Your task to perform on an android device: Search for "logitech g910" on walmart.com, select the first entry, add it to the cart, then select checkout. Image 0: 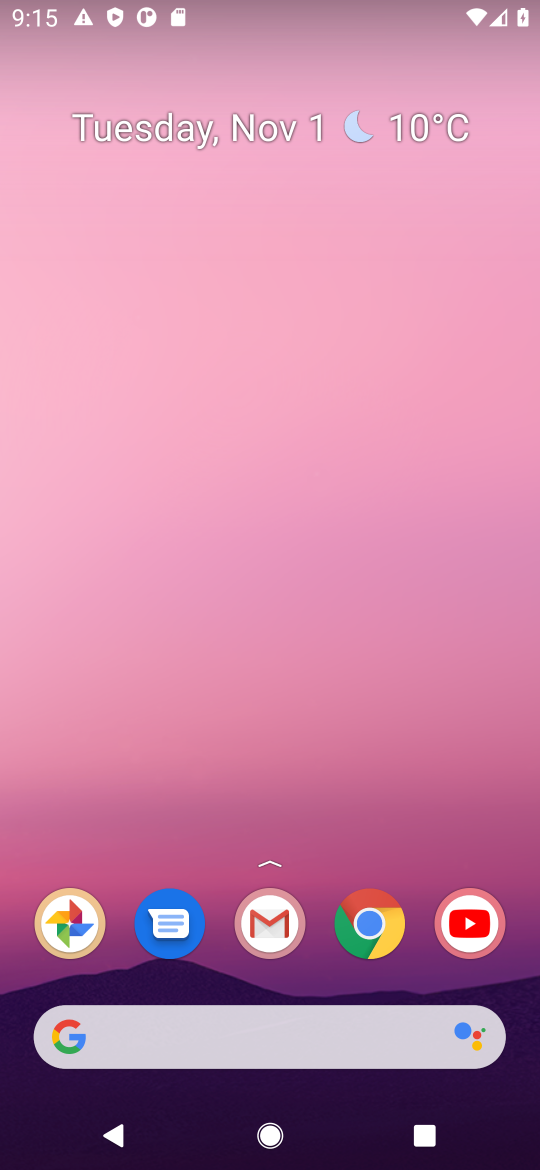
Step 0: drag from (326, 991) to (173, 11)
Your task to perform on an android device: Search for "logitech g910" on walmart.com, select the first entry, add it to the cart, then select checkout. Image 1: 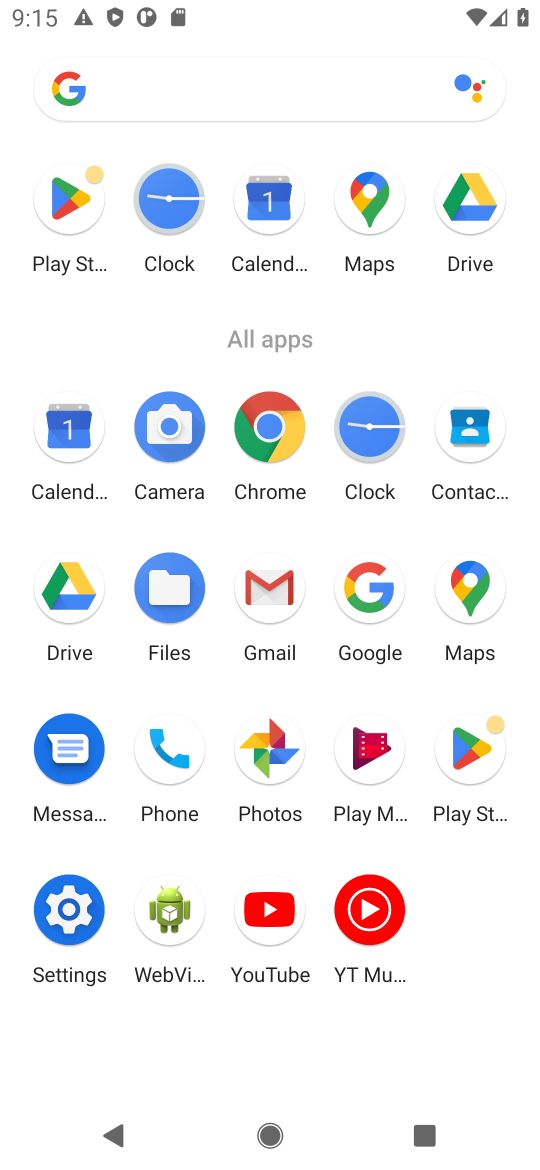
Step 1: click (270, 424)
Your task to perform on an android device: Search for "logitech g910" on walmart.com, select the first entry, add it to the cart, then select checkout. Image 2: 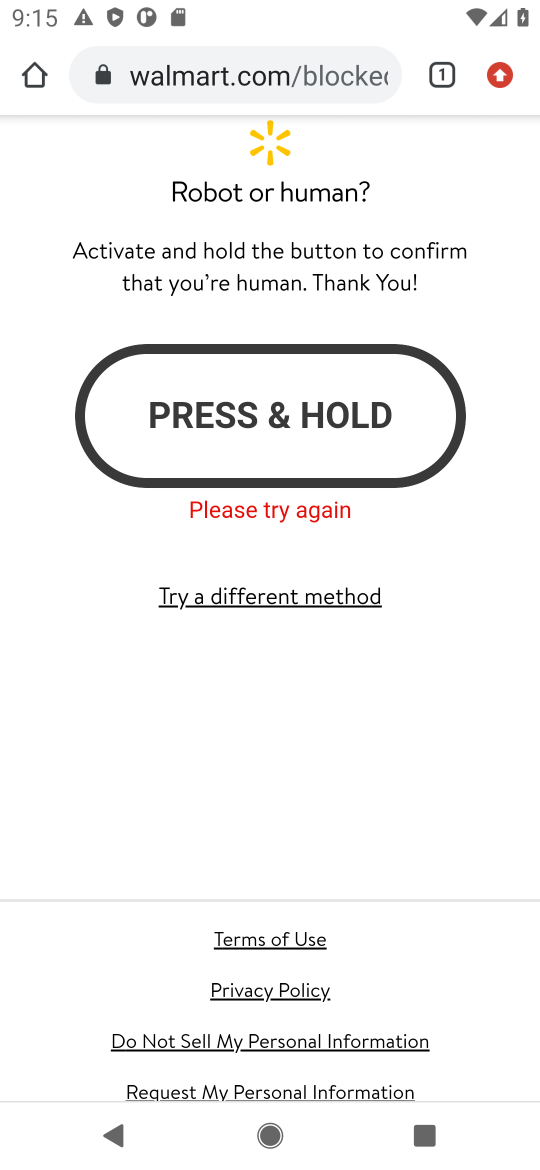
Step 2: click (282, 76)
Your task to perform on an android device: Search for "logitech g910" on walmart.com, select the first entry, add it to the cart, then select checkout. Image 3: 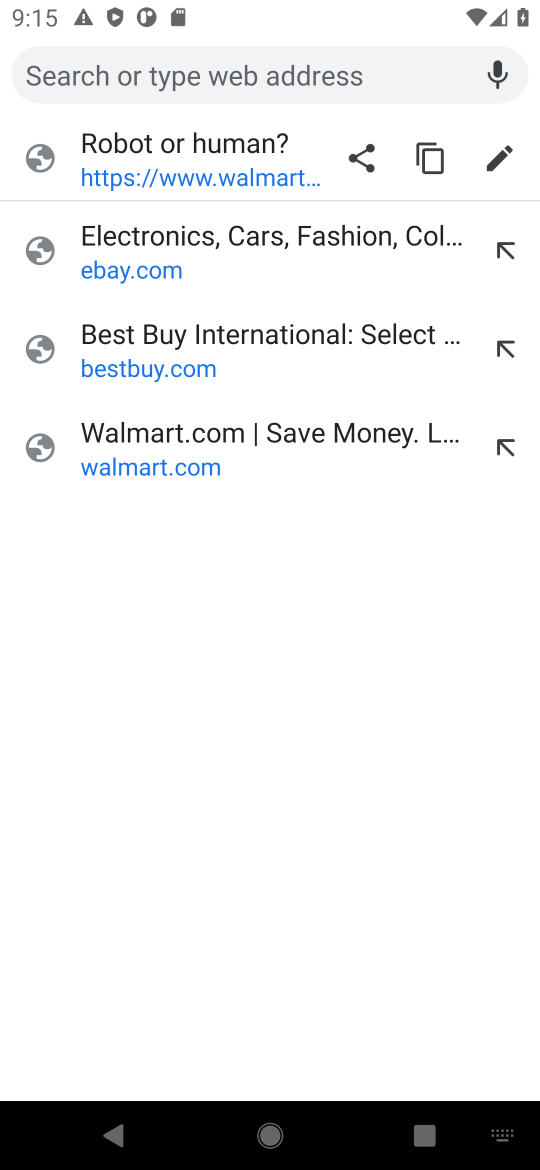
Step 3: type "walmart.com"
Your task to perform on an android device: Search for "logitech g910" on walmart.com, select the first entry, add it to the cart, then select checkout. Image 4: 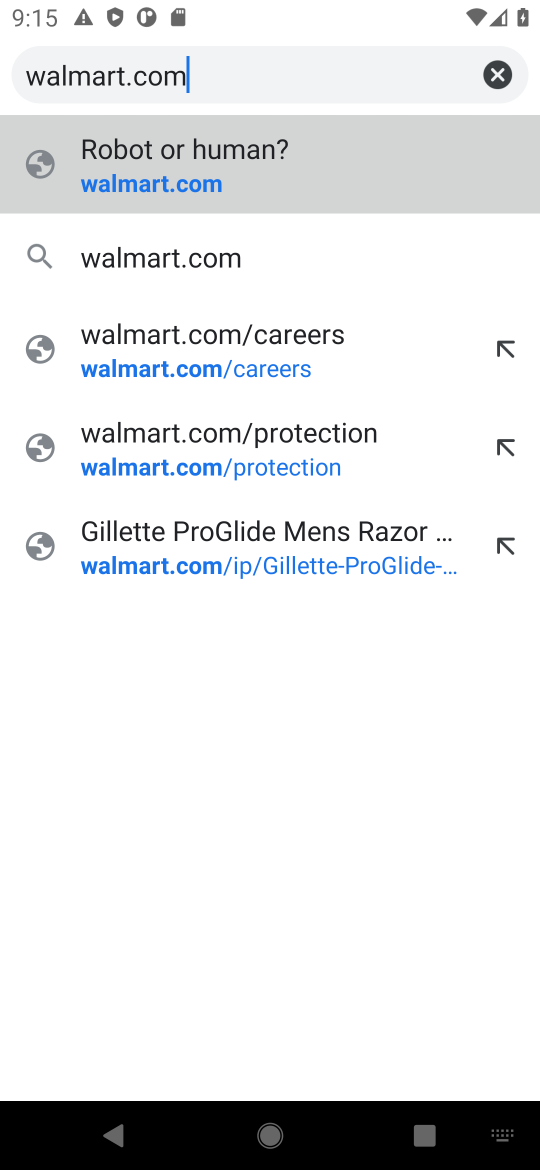
Step 4: press enter
Your task to perform on an android device: Search for "logitech g910" on walmart.com, select the first entry, add it to the cart, then select checkout. Image 5: 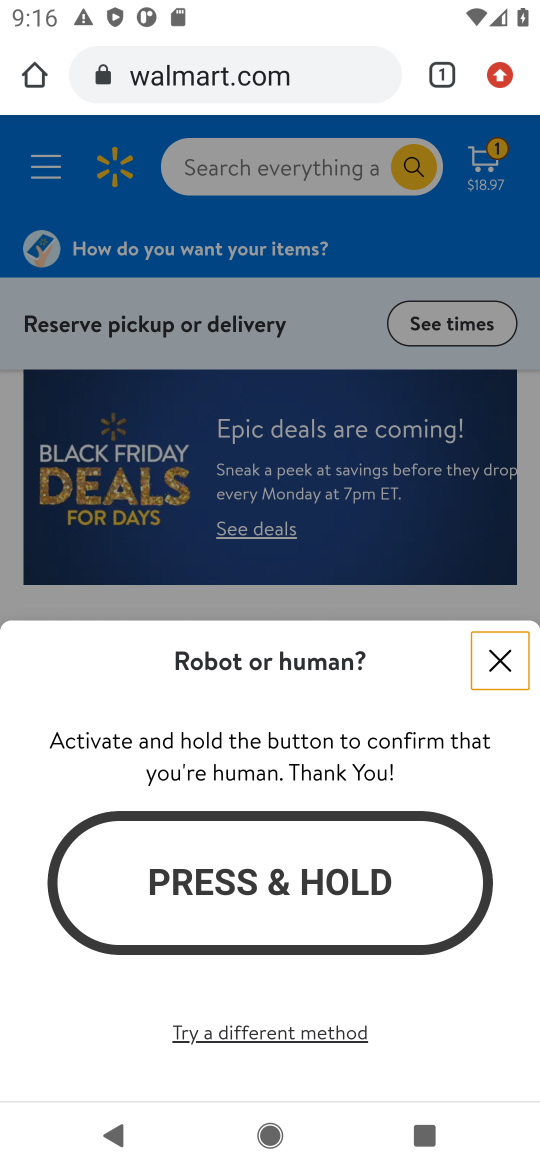
Step 5: click (298, 915)
Your task to perform on an android device: Search for "logitech g910" on walmart.com, select the first entry, add it to the cart, then select checkout. Image 6: 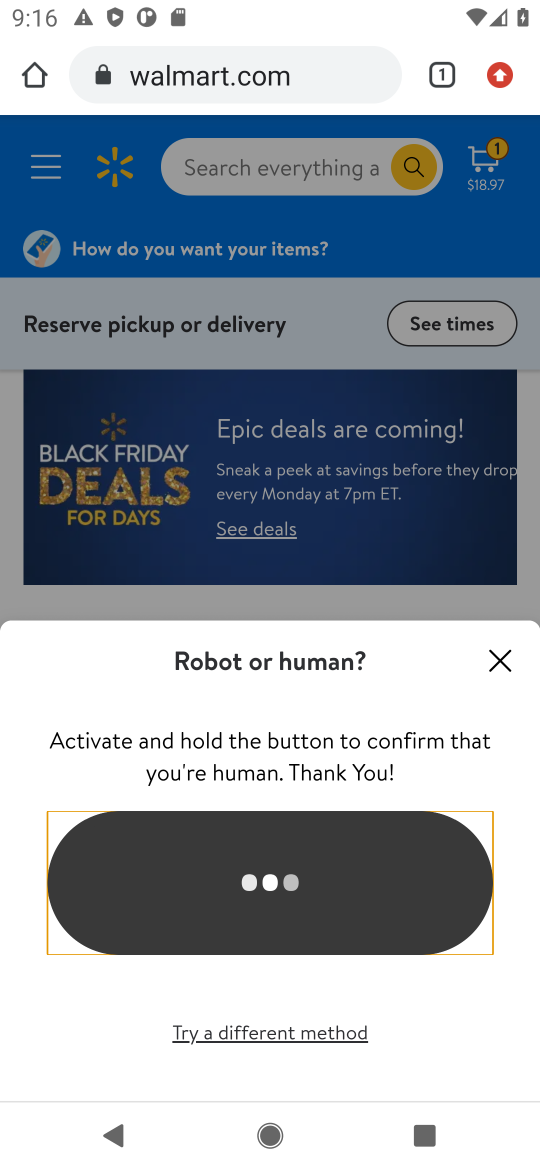
Step 6: click (505, 652)
Your task to perform on an android device: Search for "logitech g910" on walmart.com, select the first entry, add it to the cart, then select checkout. Image 7: 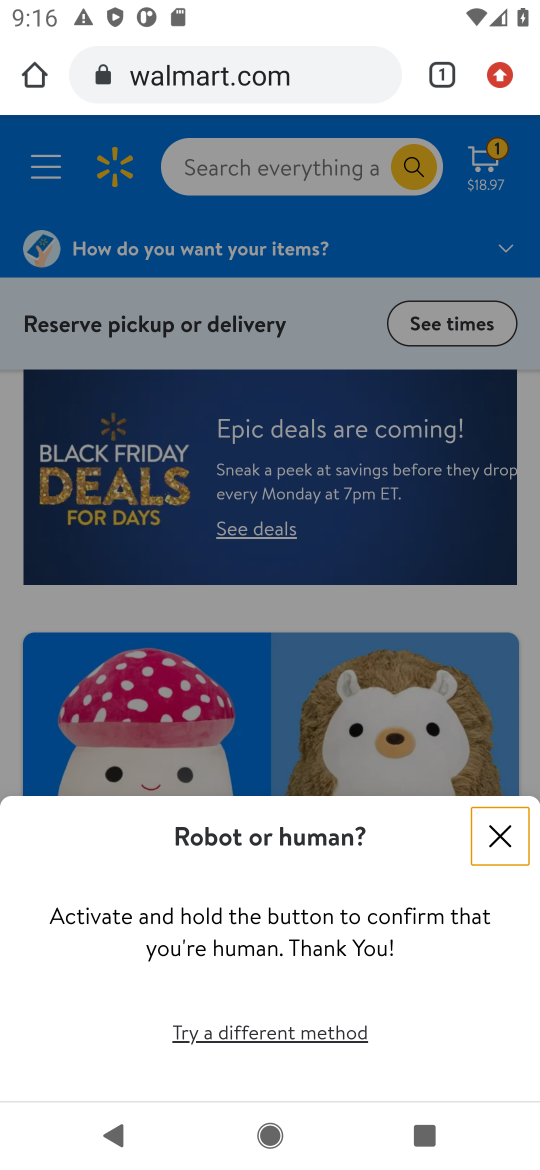
Step 7: click (327, 158)
Your task to perform on an android device: Search for "logitech g910" on walmart.com, select the first entry, add it to the cart, then select checkout. Image 8: 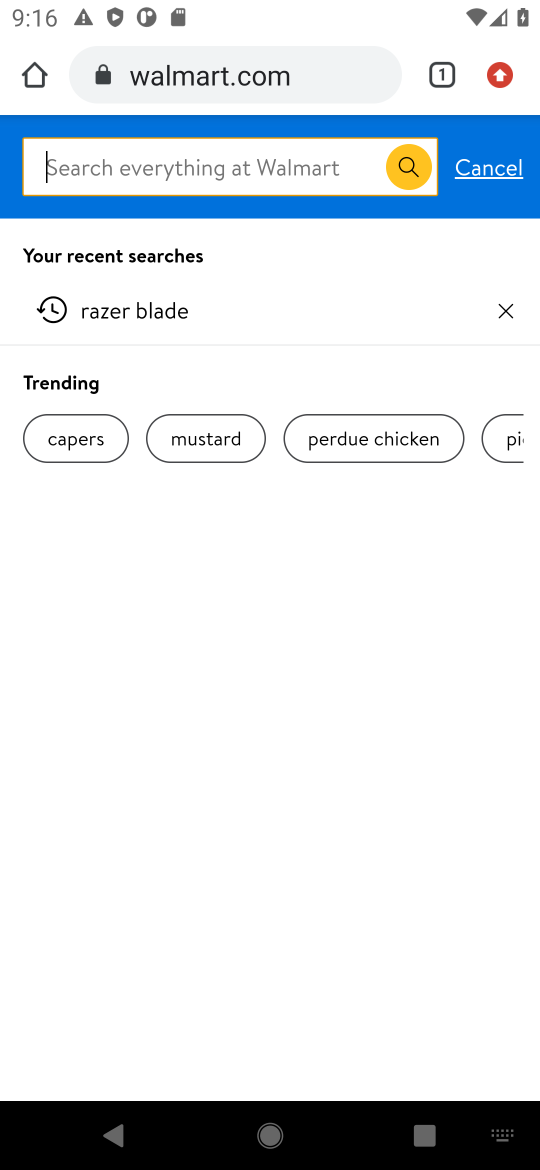
Step 8: type "logitech g910"
Your task to perform on an android device: Search for "logitech g910" on walmart.com, select the first entry, add it to the cart, then select checkout. Image 9: 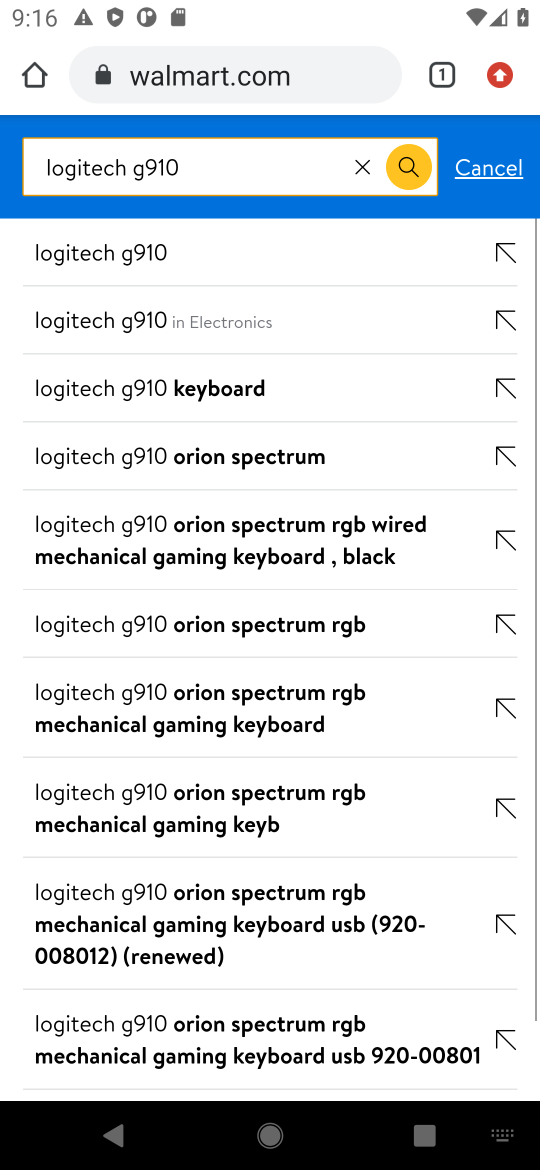
Step 9: press enter
Your task to perform on an android device: Search for "logitech g910" on walmart.com, select the first entry, add it to the cart, then select checkout. Image 10: 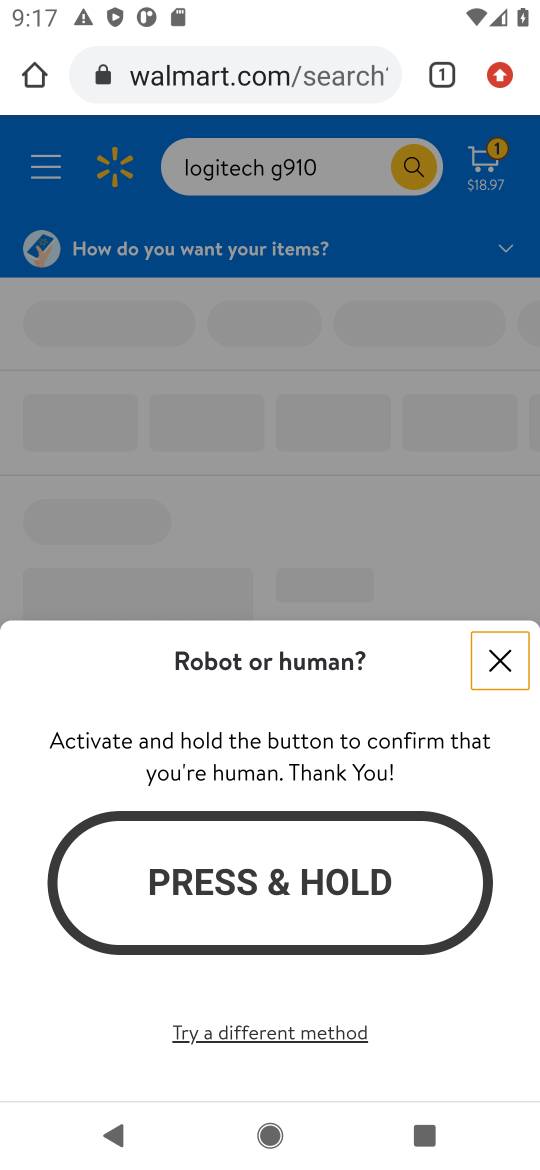
Step 10: click (512, 670)
Your task to perform on an android device: Search for "logitech g910" on walmart.com, select the first entry, add it to the cart, then select checkout. Image 11: 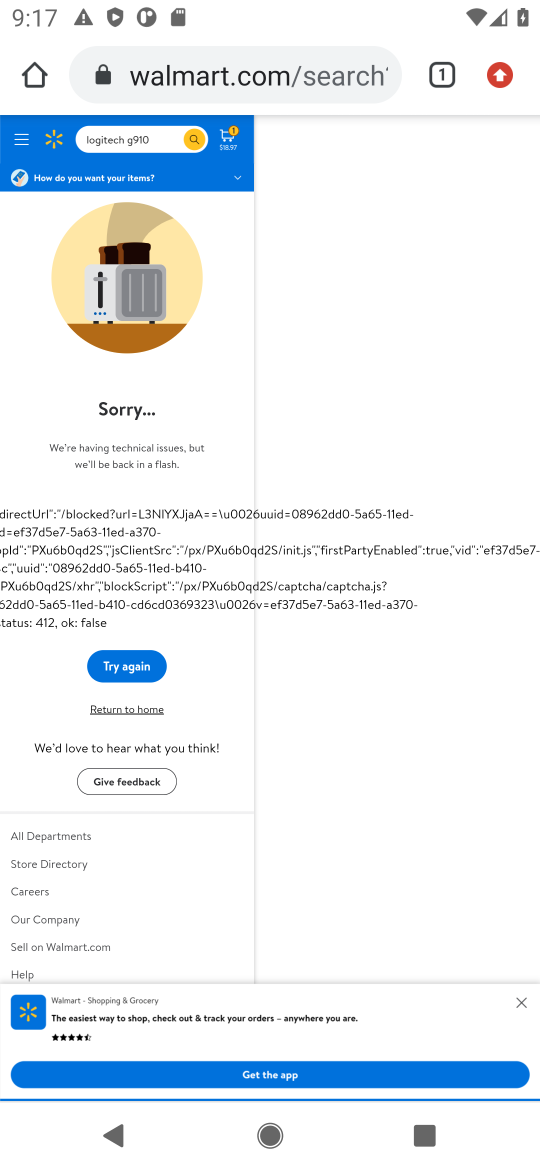
Step 11: task complete